Your task to perform on an android device: turn on showing notifications on the lock screen Image 0: 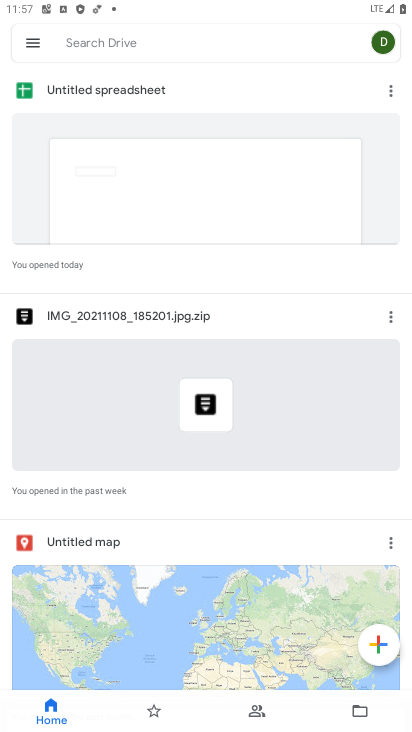
Step 0: press home button
Your task to perform on an android device: turn on showing notifications on the lock screen Image 1: 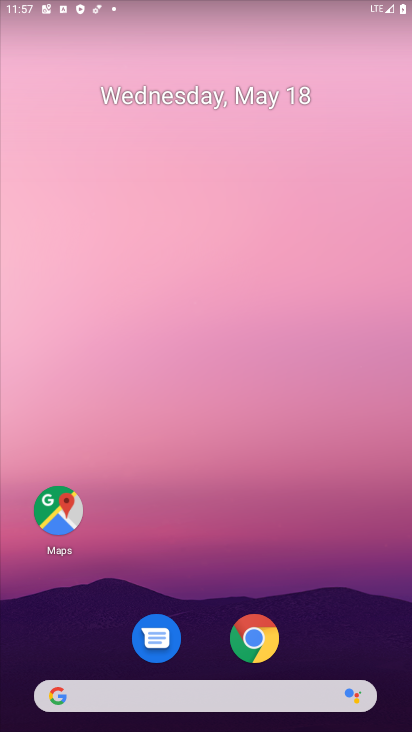
Step 1: drag from (342, 623) to (285, 90)
Your task to perform on an android device: turn on showing notifications on the lock screen Image 2: 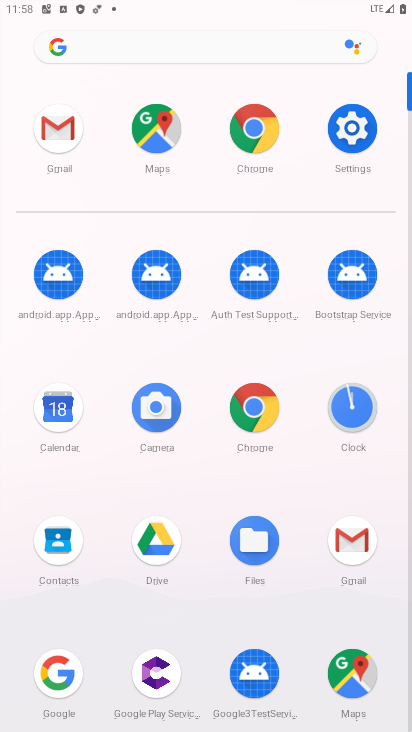
Step 2: click (355, 128)
Your task to perform on an android device: turn on showing notifications on the lock screen Image 3: 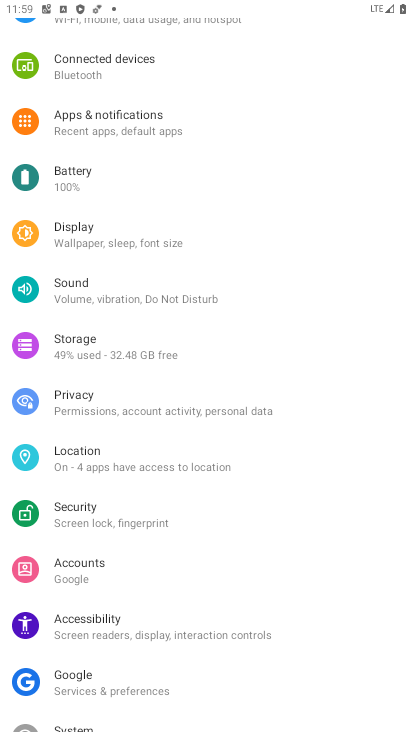
Step 3: click (161, 128)
Your task to perform on an android device: turn on showing notifications on the lock screen Image 4: 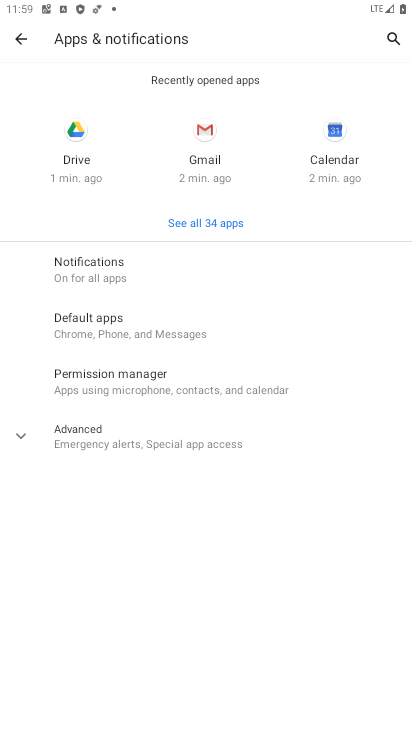
Step 4: click (164, 267)
Your task to perform on an android device: turn on showing notifications on the lock screen Image 5: 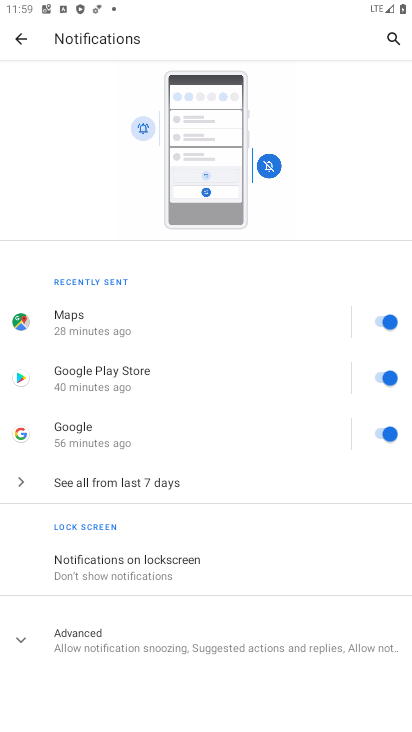
Step 5: click (159, 560)
Your task to perform on an android device: turn on showing notifications on the lock screen Image 6: 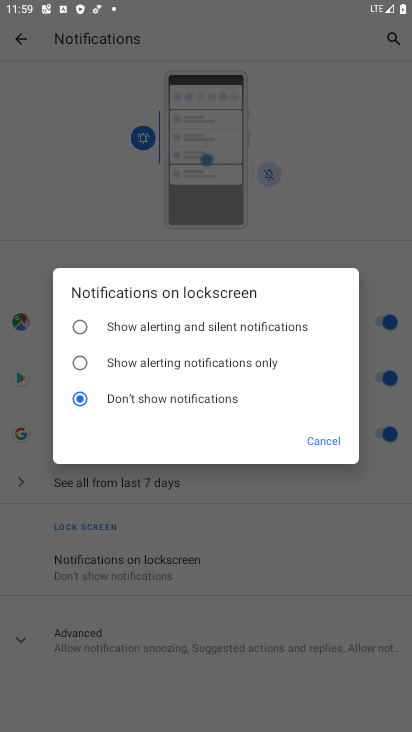
Step 6: click (113, 323)
Your task to perform on an android device: turn on showing notifications on the lock screen Image 7: 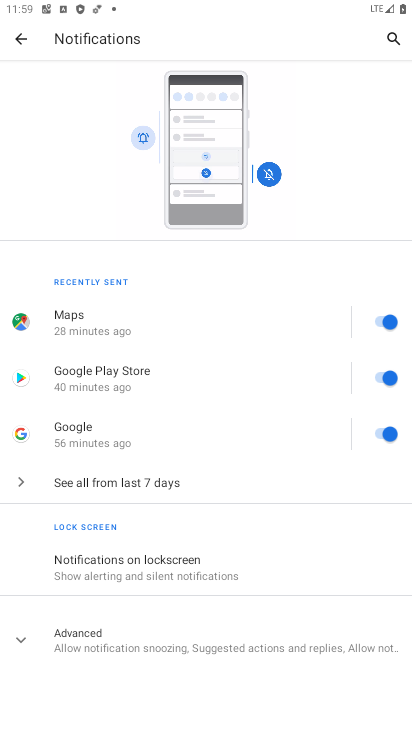
Step 7: task complete